Your task to perform on an android device: clear history in the chrome app Image 0: 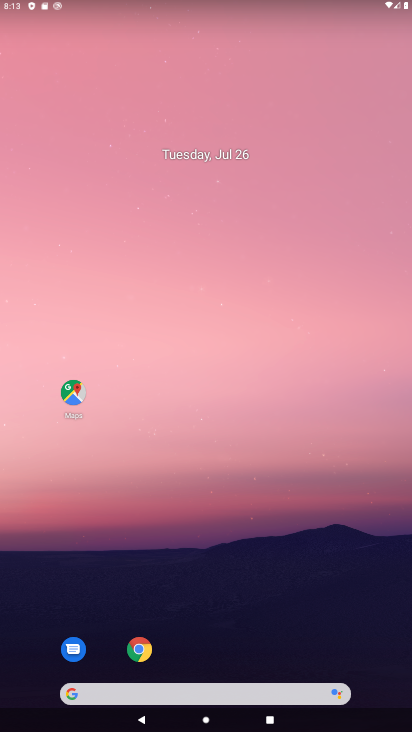
Step 0: click (145, 649)
Your task to perform on an android device: clear history in the chrome app Image 1: 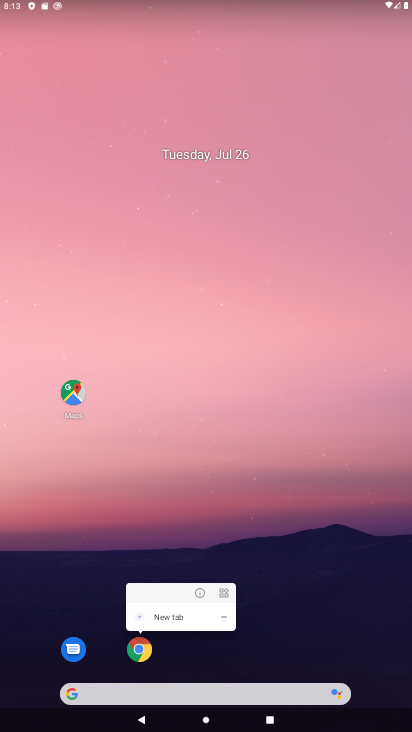
Step 1: click (134, 646)
Your task to perform on an android device: clear history in the chrome app Image 2: 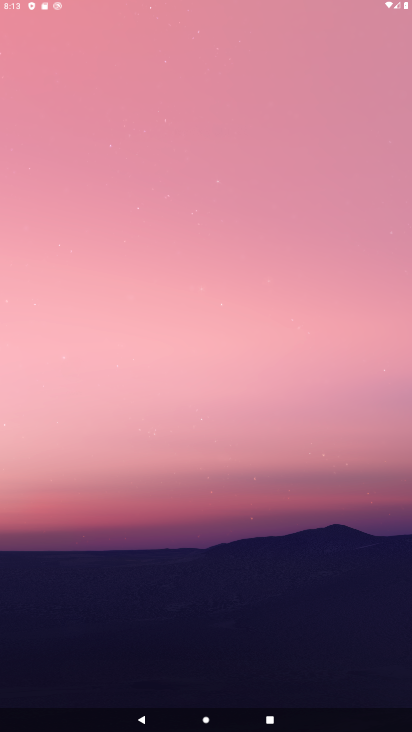
Step 2: click (192, 593)
Your task to perform on an android device: clear history in the chrome app Image 3: 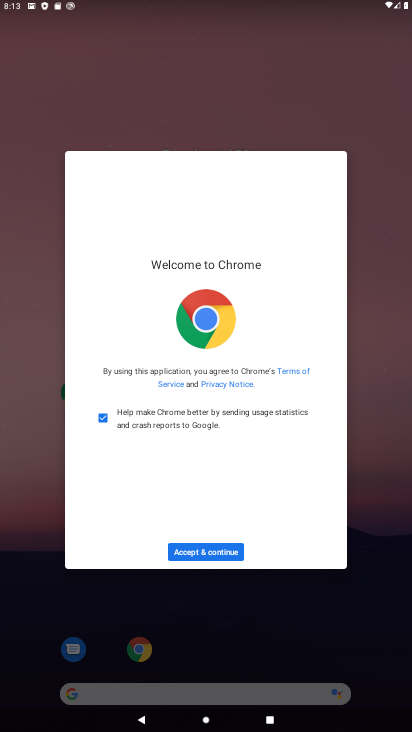
Step 3: click (204, 561)
Your task to perform on an android device: clear history in the chrome app Image 4: 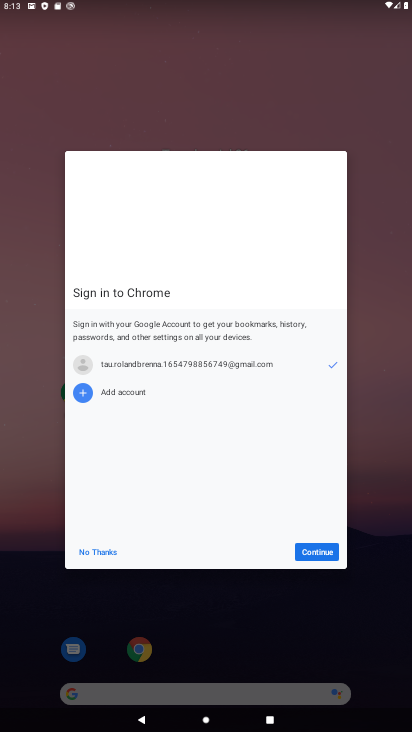
Step 4: click (311, 555)
Your task to perform on an android device: clear history in the chrome app Image 5: 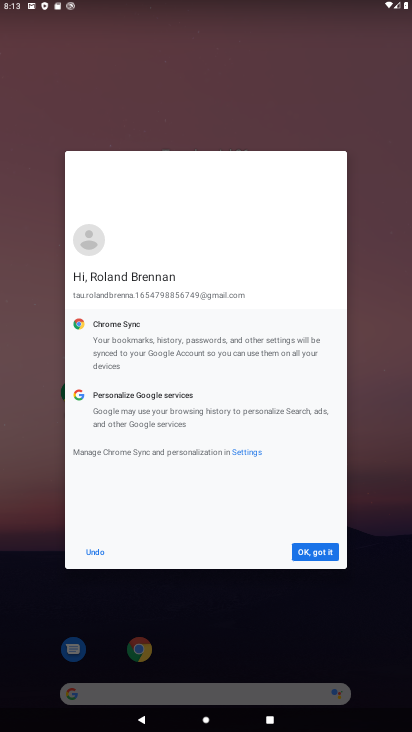
Step 5: click (314, 560)
Your task to perform on an android device: clear history in the chrome app Image 6: 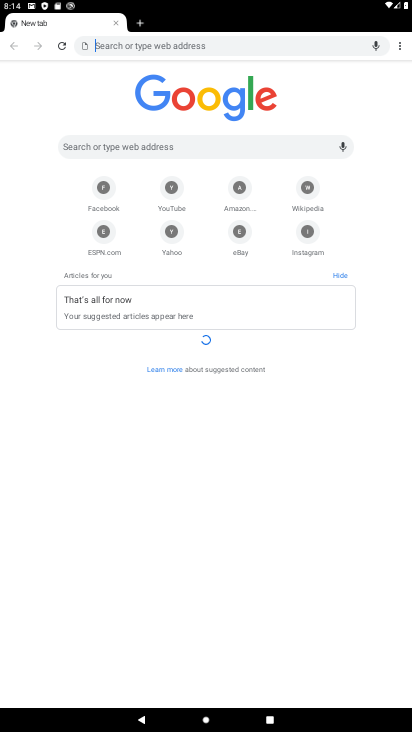
Step 6: click (401, 45)
Your task to perform on an android device: clear history in the chrome app Image 7: 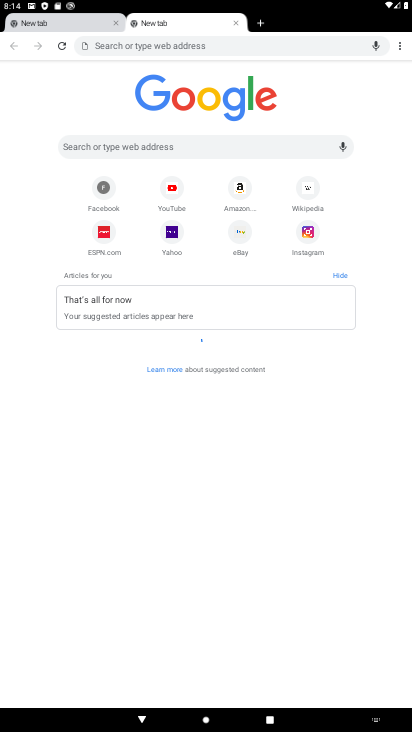
Step 7: click (402, 43)
Your task to perform on an android device: clear history in the chrome app Image 8: 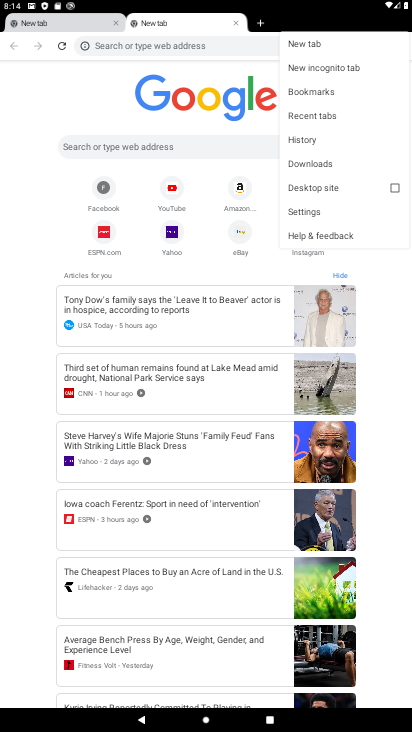
Step 8: click (308, 128)
Your task to perform on an android device: clear history in the chrome app Image 9: 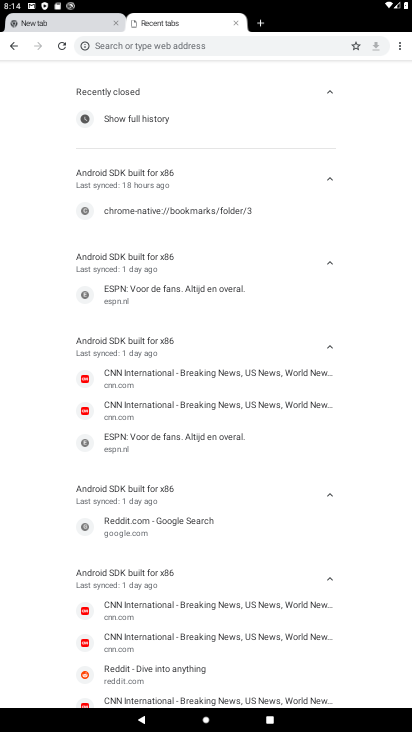
Step 9: drag from (402, 38) to (322, 143)
Your task to perform on an android device: clear history in the chrome app Image 10: 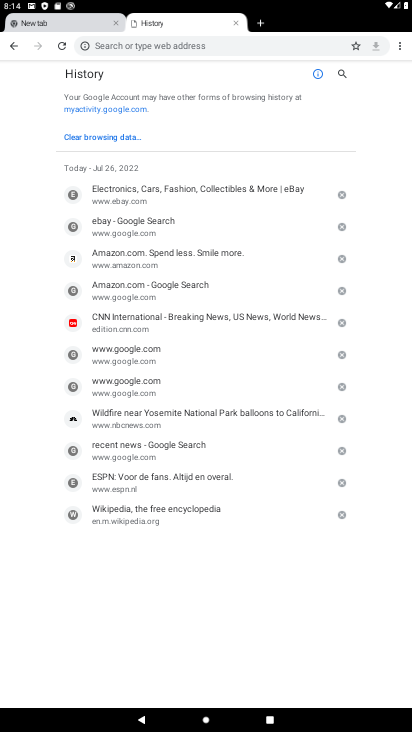
Step 10: click (93, 139)
Your task to perform on an android device: clear history in the chrome app Image 11: 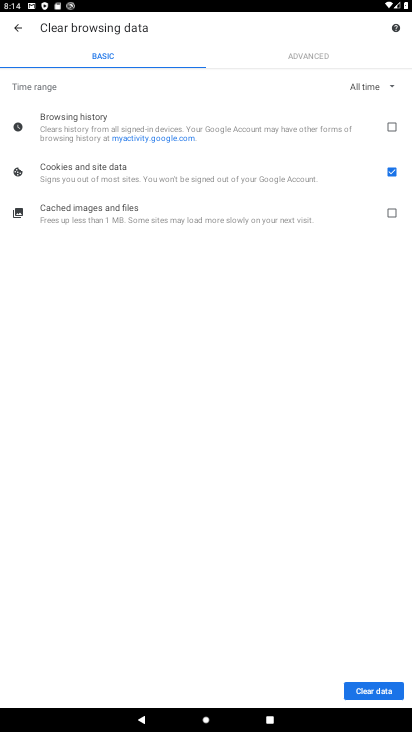
Step 11: click (388, 123)
Your task to perform on an android device: clear history in the chrome app Image 12: 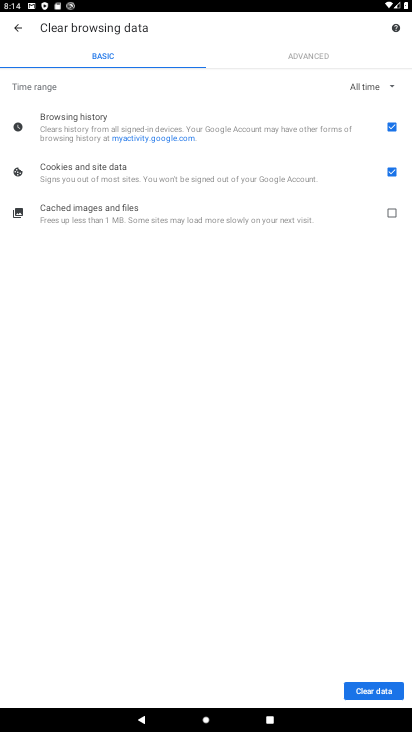
Step 12: click (391, 211)
Your task to perform on an android device: clear history in the chrome app Image 13: 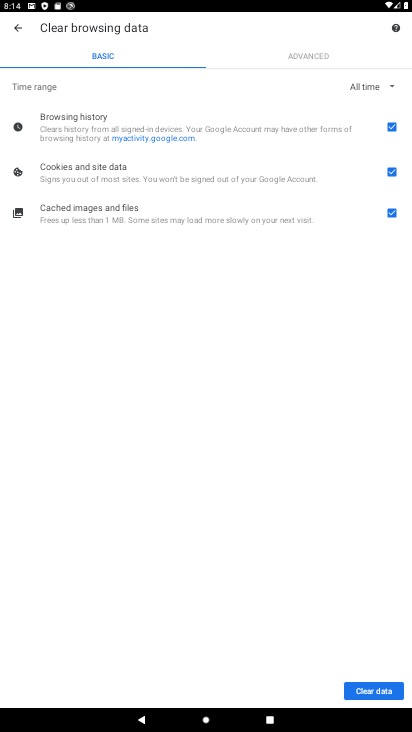
Step 13: click (378, 684)
Your task to perform on an android device: clear history in the chrome app Image 14: 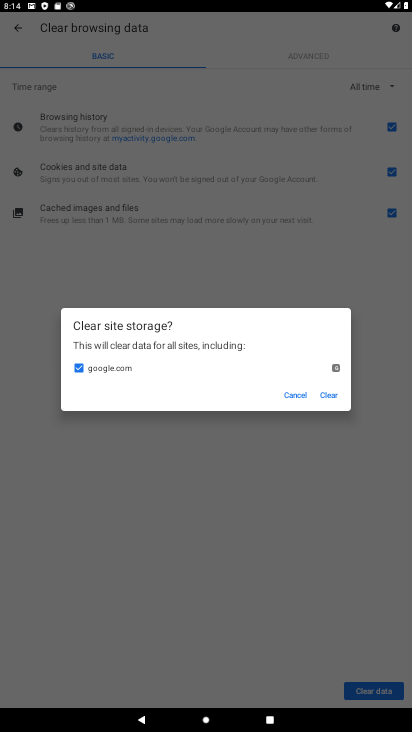
Step 14: click (327, 399)
Your task to perform on an android device: clear history in the chrome app Image 15: 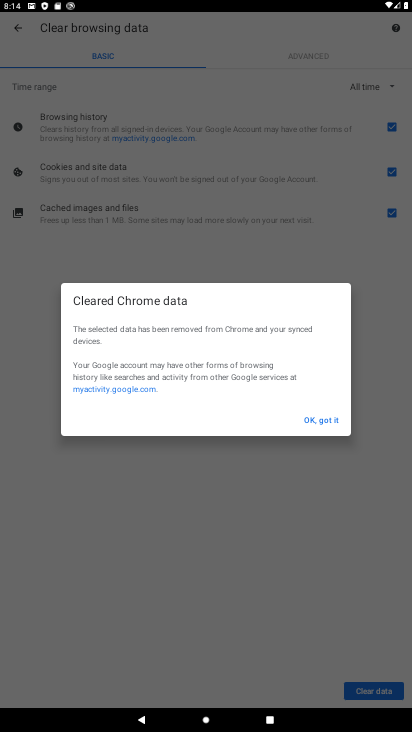
Step 15: click (316, 419)
Your task to perform on an android device: clear history in the chrome app Image 16: 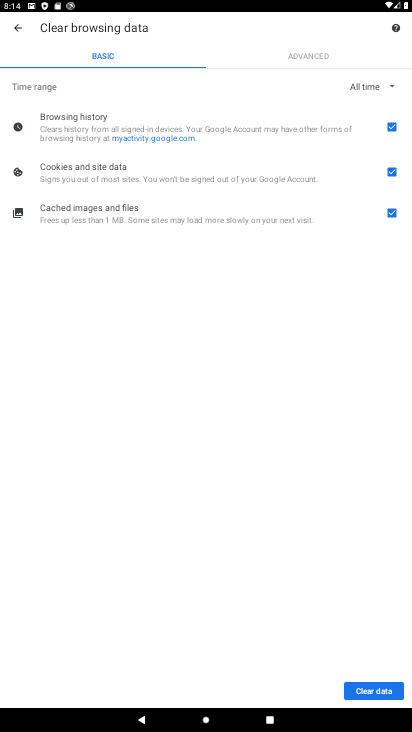
Step 16: task complete